Your task to perform on an android device: Open my contact list Image 0: 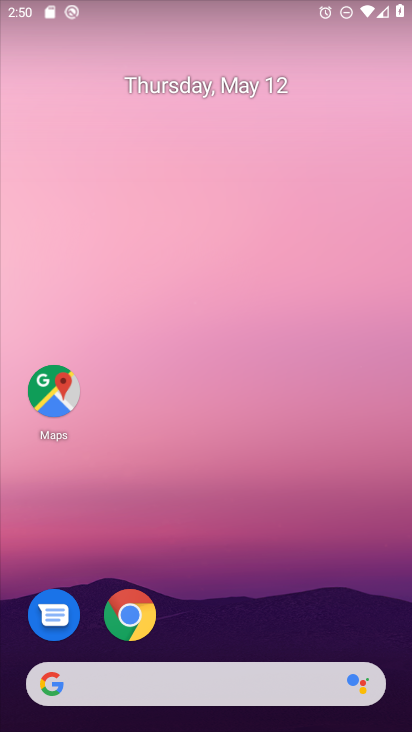
Step 0: drag from (311, 639) to (340, 8)
Your task to perform on an android device: Open my contact list Image 1: 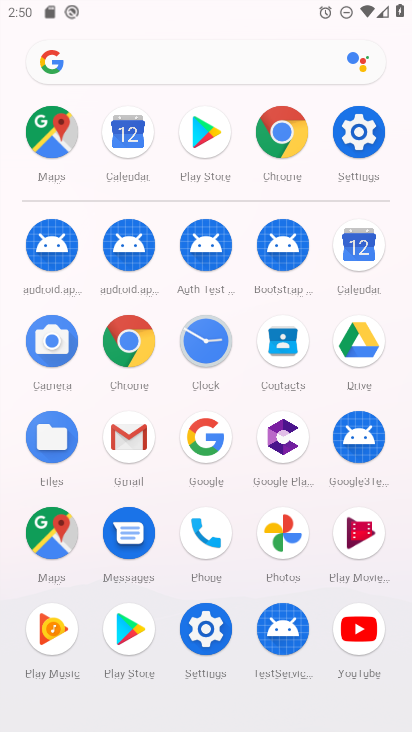
Step 1: click (281, 349)
Your task to perform on an android device: Open my contact list Image 2: 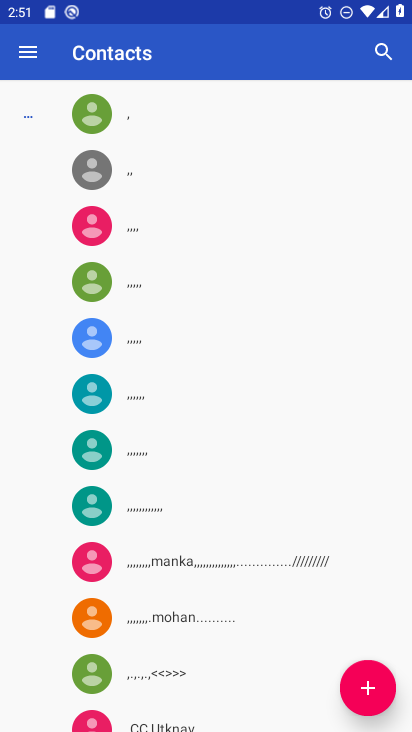
Step 2: task complete